Your task to perform on an android device: Open Google Maps Image 0: 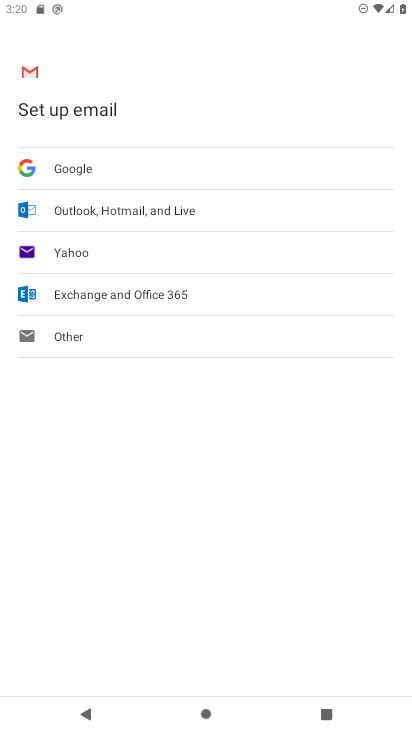
Step 0: press home button
Your task to perform on an android device: Open Google Maps Image 1: 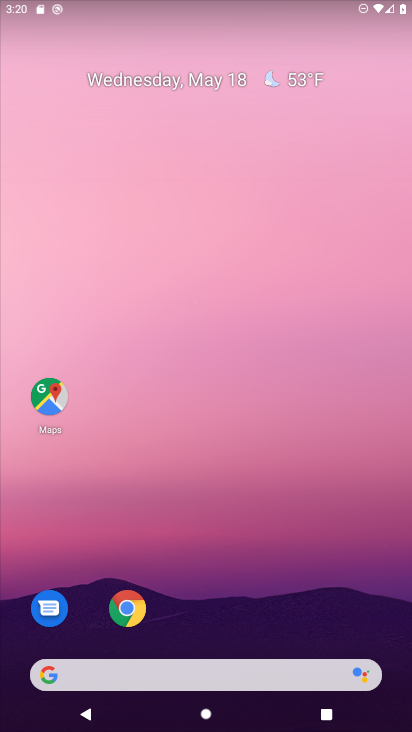
Step 1: click (53, 407)
Your task to perform on an android device: Open Google Maps Image 2: 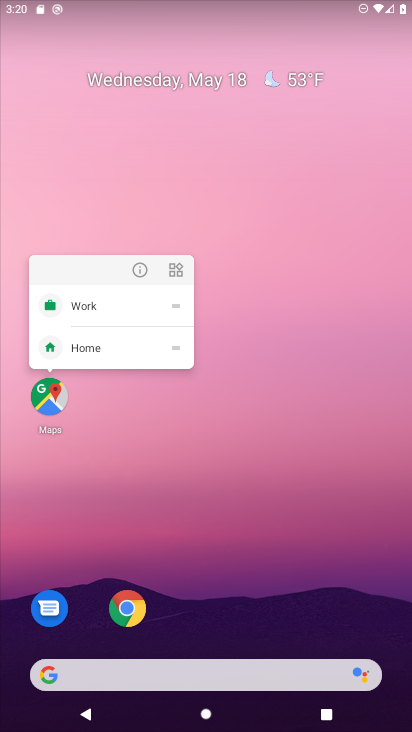
Step 2: click (53, 407)
Your task to perform on an android device: Open Google Maps Image 3: 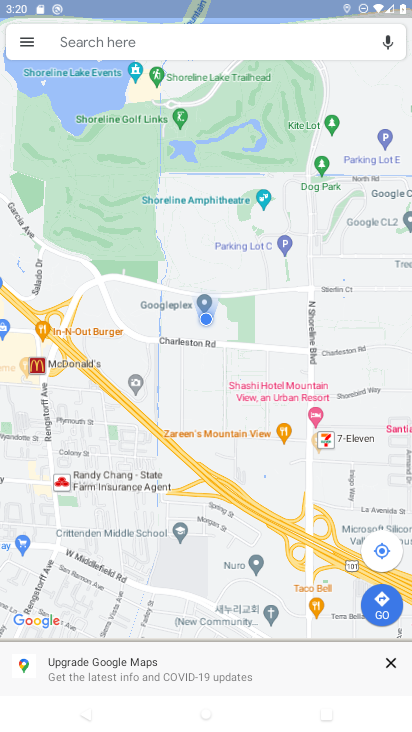
Step 3: click (51, 396)
Your task to perform on an android device: Open Google Maps Image 4: 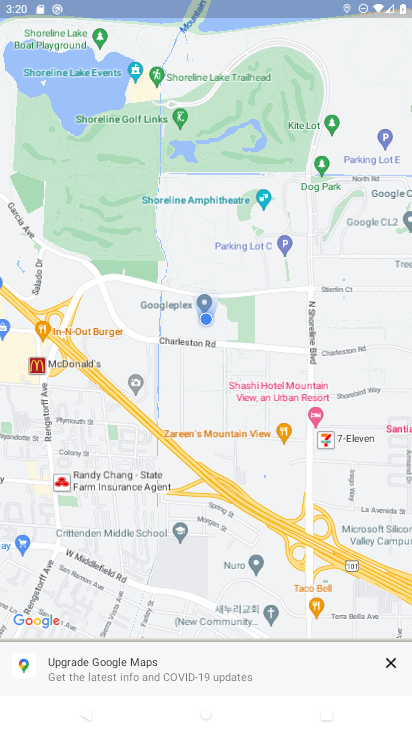
Step 4: task complete